Your task to perform on an android device: find photos in the google photos app Image 0: 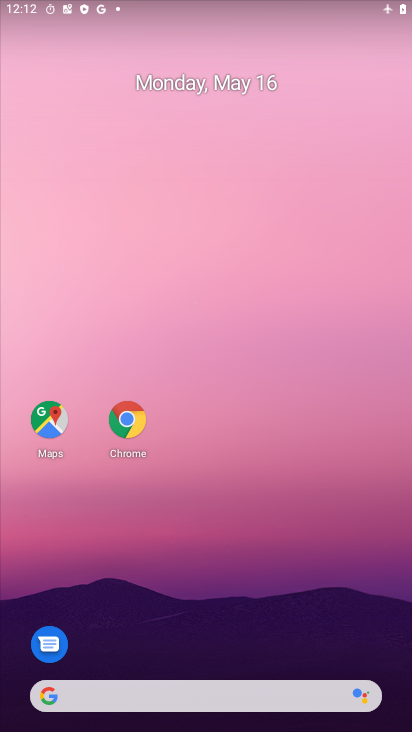
Step 0: drag from (193, 581) to (239, 140)
Your task to perform on an android device: find photos in the google photos app Image 1: 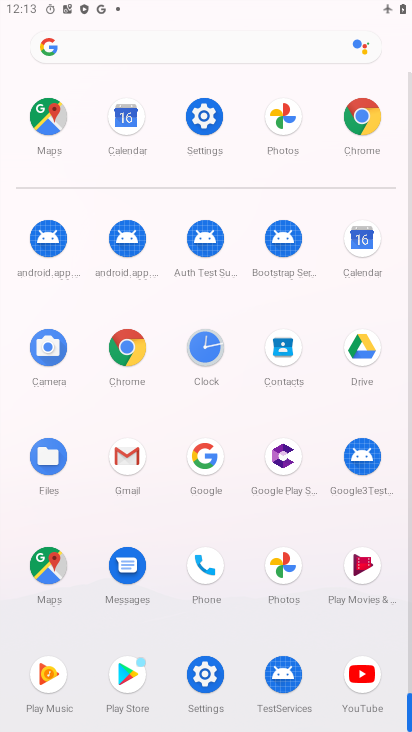
Step 1: click (290, 577)
Your task to perform on an android device: find photos in the google photos app Image 2: 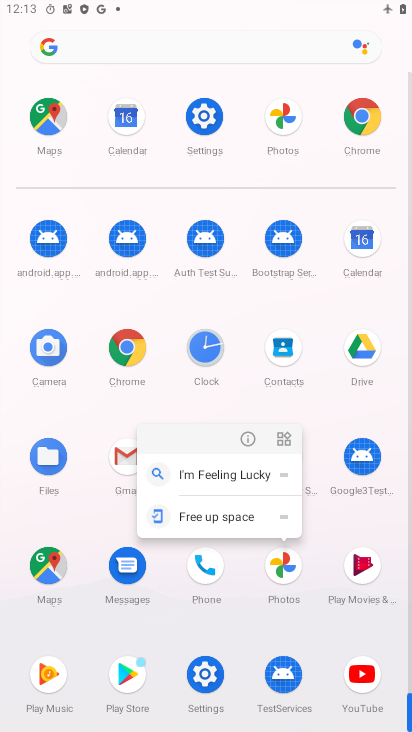
Step 2: click (248, 450)
Your task to perform on an android device: find photos in the google photos app Image 3: 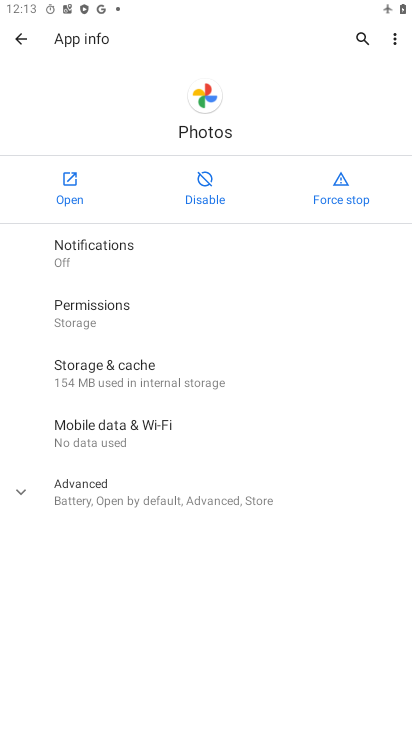
Step 3: click (62, 183)
Your task to perform on an android device: find photos in the google photos app Image 4: 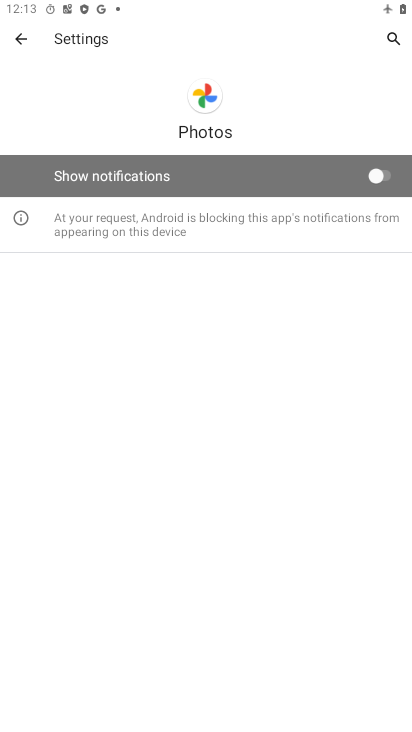
Step 4: click (29, 30)
Your task to perform on an android device: find photos in the google photos app Image 5: 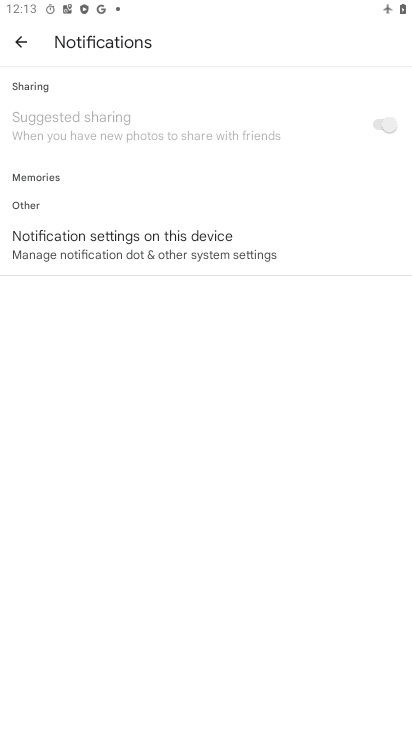
Step 5: click (19, 27)
Your task to perform on an android device: find photos in the google photos app Image 6: 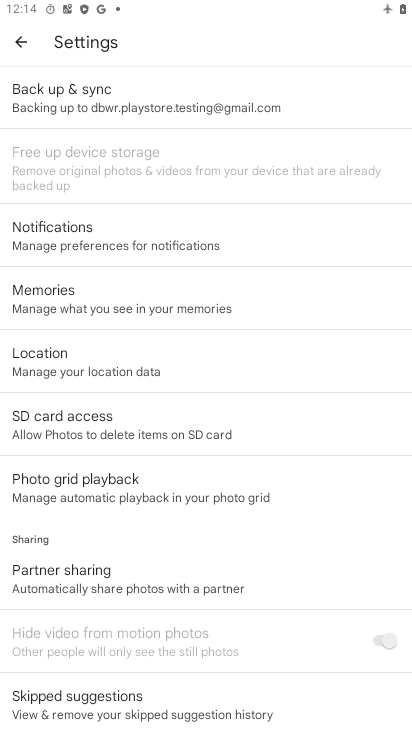
Step 6: click (17, 39)
Your task to perform on an android device: find photos in the google photos app Image 7: 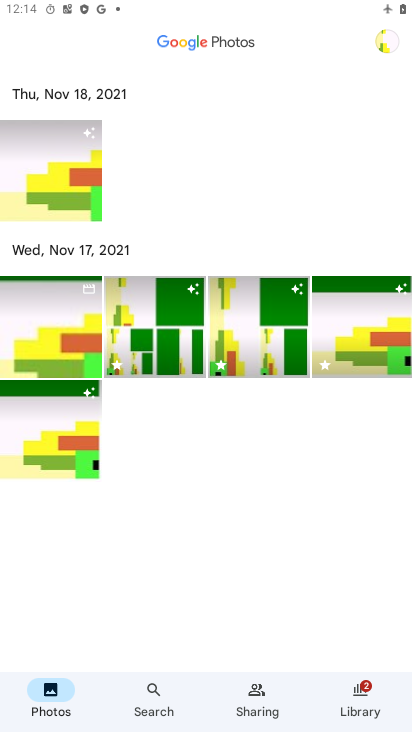
Step 7: click (52, 168)
Your task to perform on an android device: find photos in the google photos app Image 8: 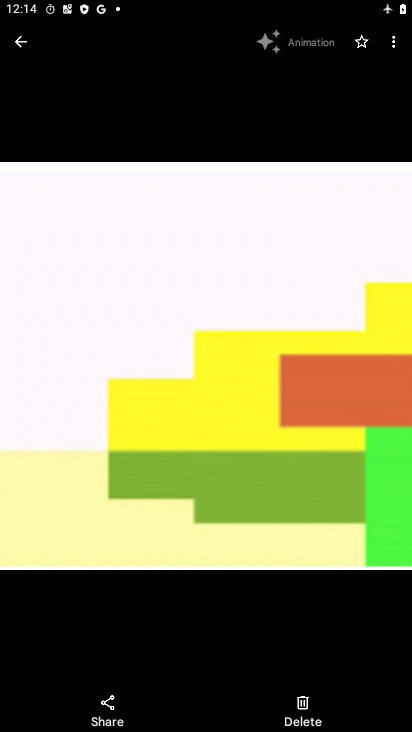
Step 8: task complete